Your task to perform on an android device: Open Google Maps Image 0: 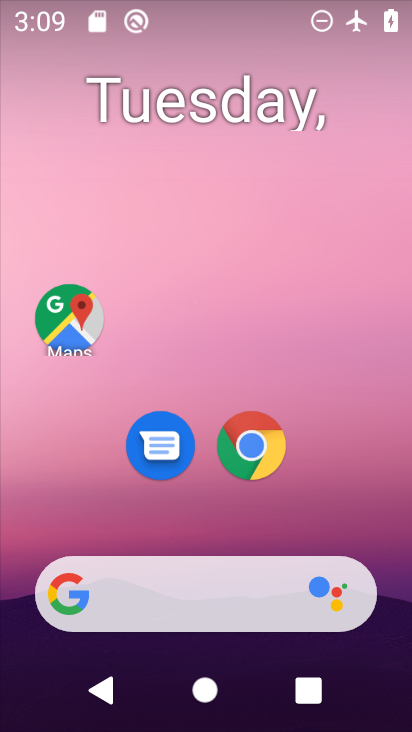
Step 0: click (70, 321)
Your task to perform on an android device: Open Google Maps Image 1: 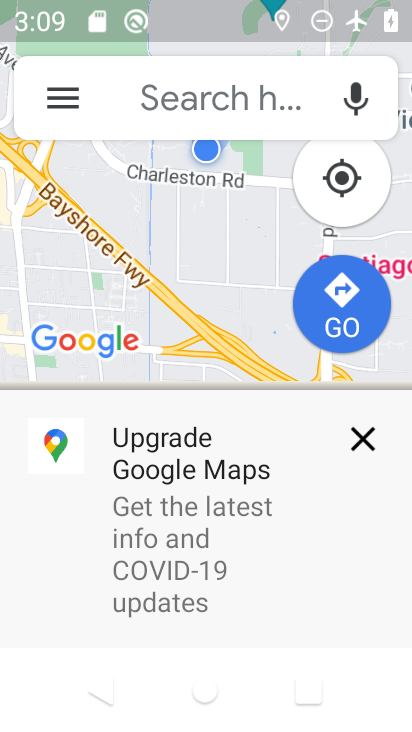
Step 1: task complete